Your task to perform on an android device: Open Youtube and go to the subscriptions tab Image 0: 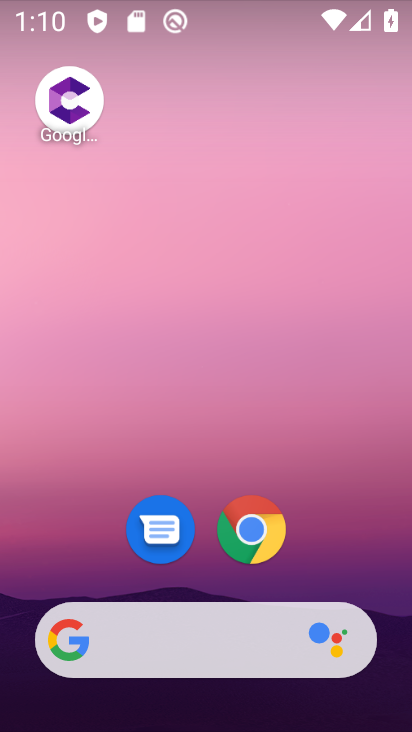
Step 0: drag from (221, 502) to (262, 0)
Your task to perform on an android device: Open Youtube and go to the subscriptions tab Image 1: 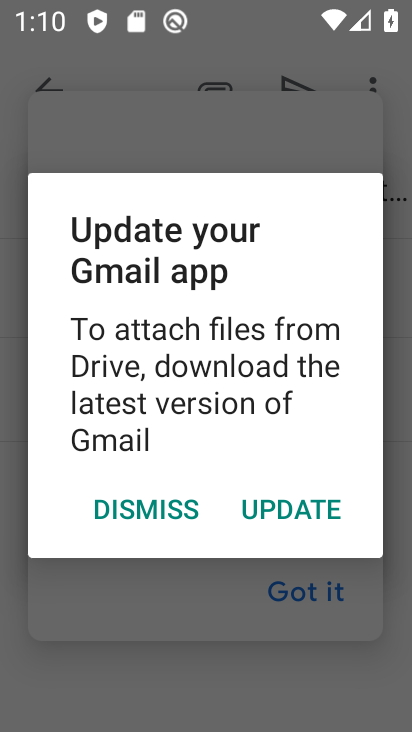
Step 1: press home button
Your task to perform on an android device: Open Youtube and go to the subscriptions tab Image 2: 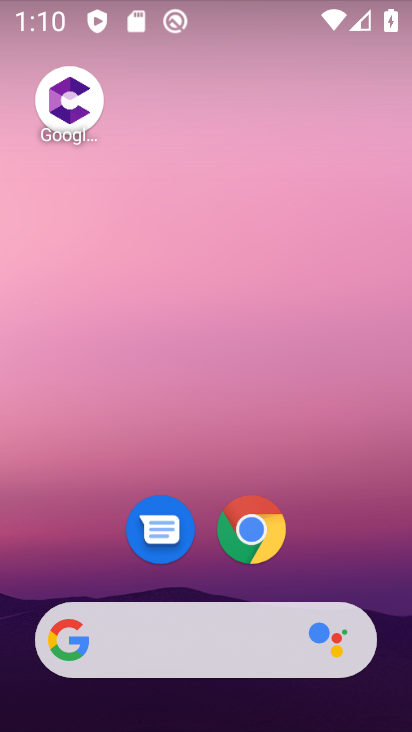
Step 2: drag from (211, 567) to (259, 114)
Your task to perform on an android device: Open Youtube and go to the subscriptions tab Image 3: 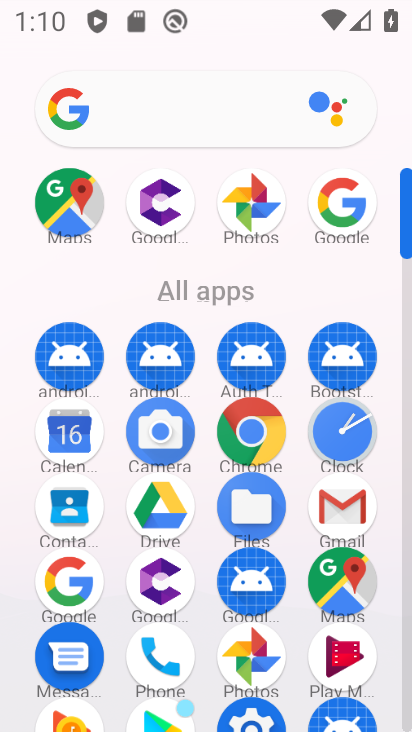
Step 3: drag from (293, 634) to (293, 194)
Your task to perform on an android device: Open Youtube and go to the subscriptions tab Image 4: 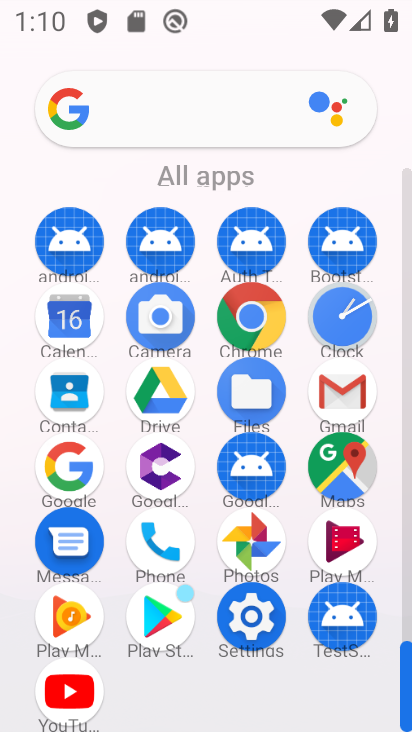
Step 4: click (60, 691)
Your task to perform on an android device: Open Youtube and go to the subscriptions tab Image 5: 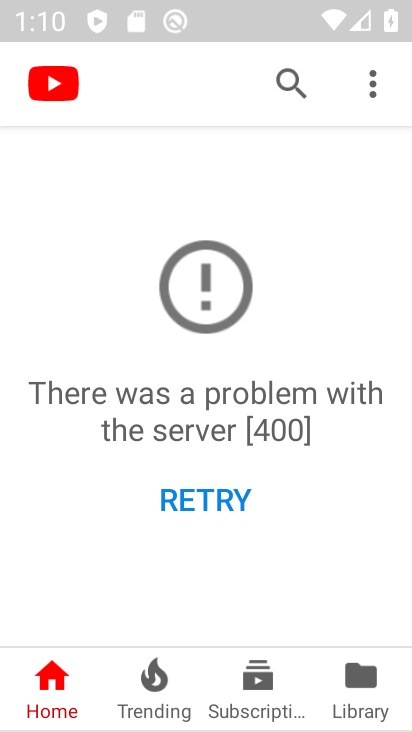
Step 5: click (261, 702)
Your task to perform on an android device: Open Youtube and go to the subscriptions tab Image 6: 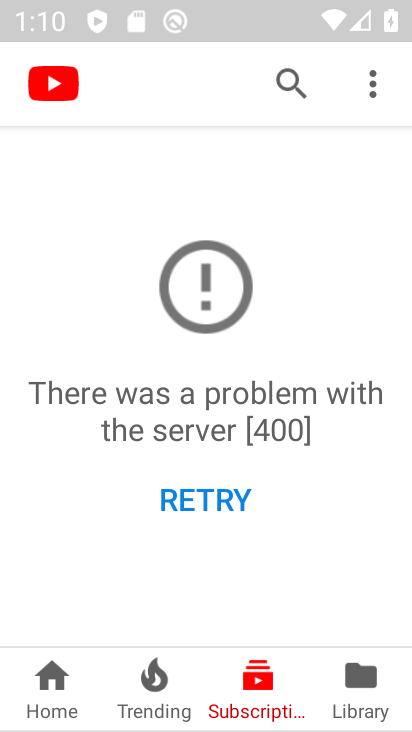
Step 6: click (162, 517)
Your task to perform on an android device: Open Youtube and go to the subscriptions tab Image 7: 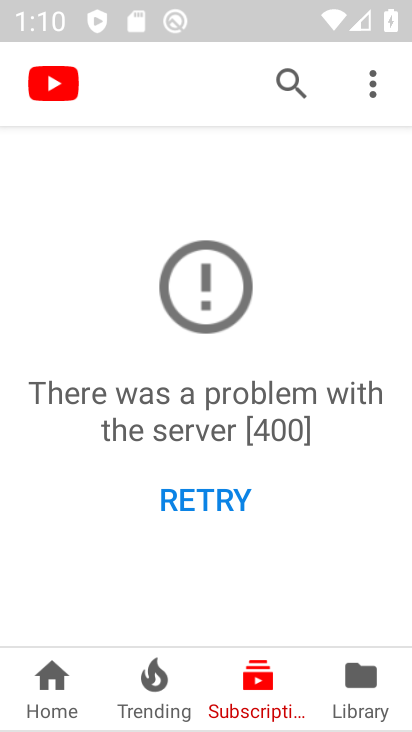
Step 7: task complete